Your task to perform on an android device: Open calendar and show me the fourth week of next month Image 0: 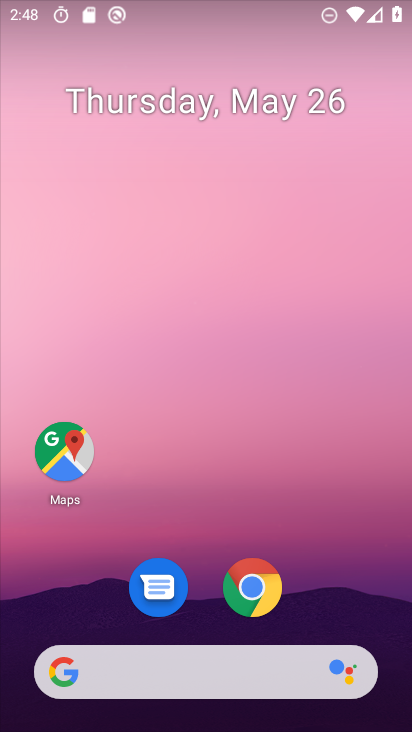
Step 0: drag from (327, 561) to (294, 163)
Your task to perform on an android device: Open calendar and show me the fourth week of next month Image 1: 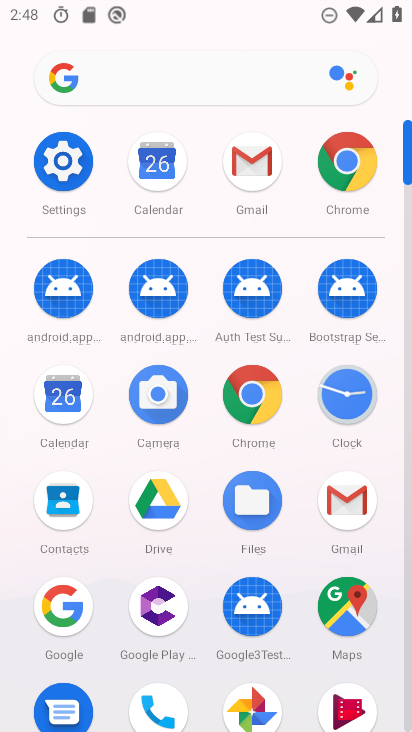
Step 1: click (67, 417)
Your task to perform on an android device: Open calendar and show me the fourth week of next month Image 2: 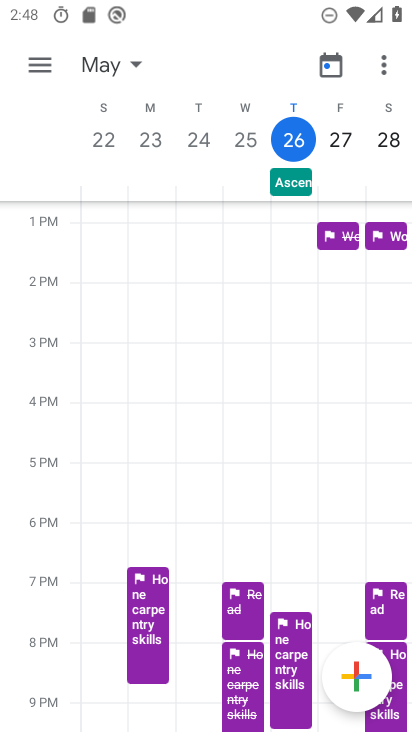
Step 2: click (120, 71)
Your task to perform on an android device: Open calendar and show me the fourth week of next month Image 3: 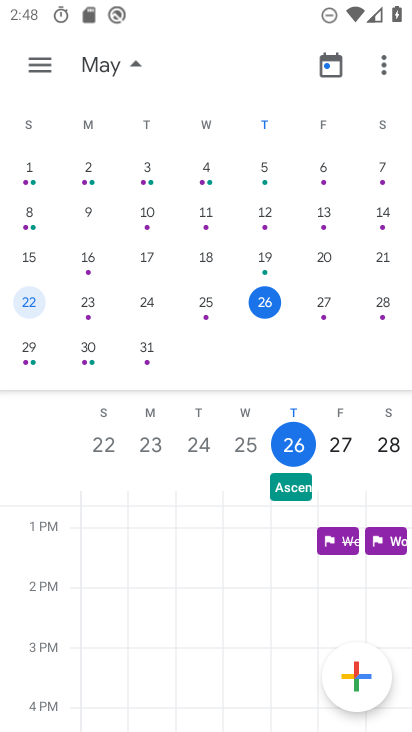
Step 3: drag from (369, 265) to (38, 250)
Your task to perform on an android device: Open calendar and show me the fourth week of next month Image 4: 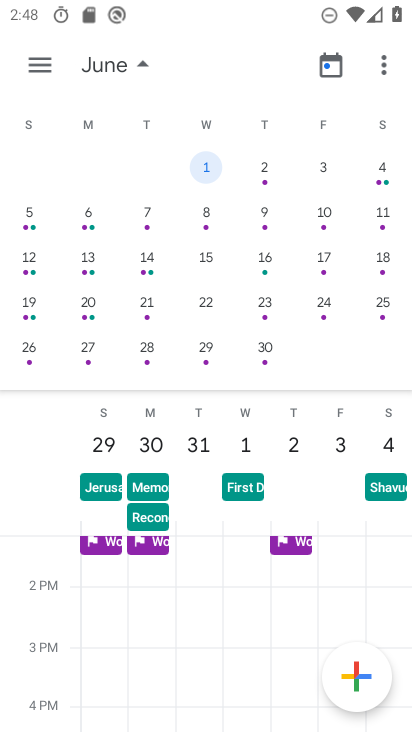
Step 4: click (33, 350)
Your task to perform on an android device: Open calendar and show me the fourth week of next month Image 5: 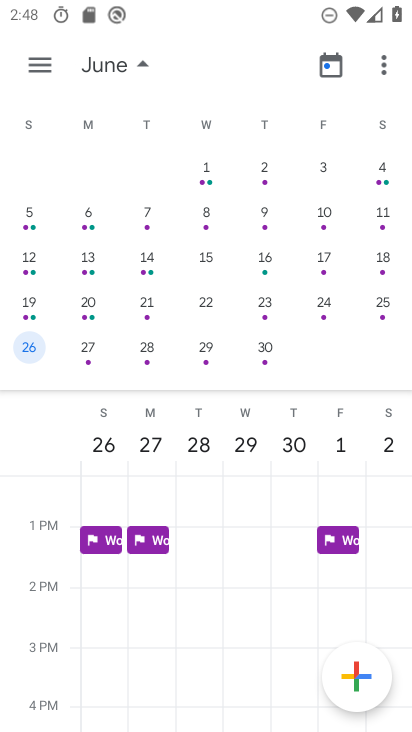
Step 5: task complete